Your task to perform on an android device: toggle javascript in the chrome app Image 0: 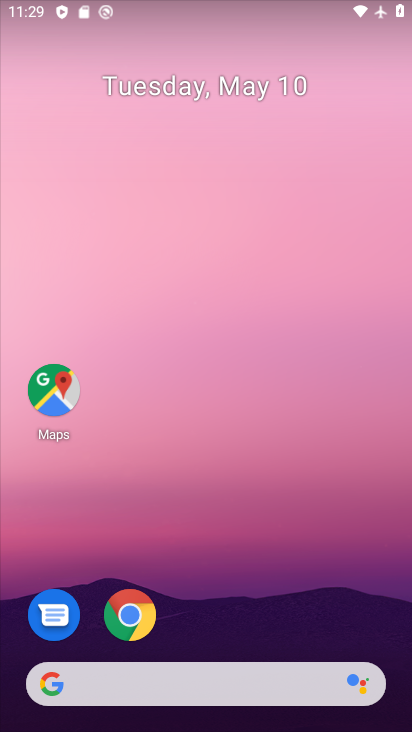
Step 0: drag from (268, 558) to (218, 13)
Your task to perform on an android device: toggle javascript in the chrome app Image 1: 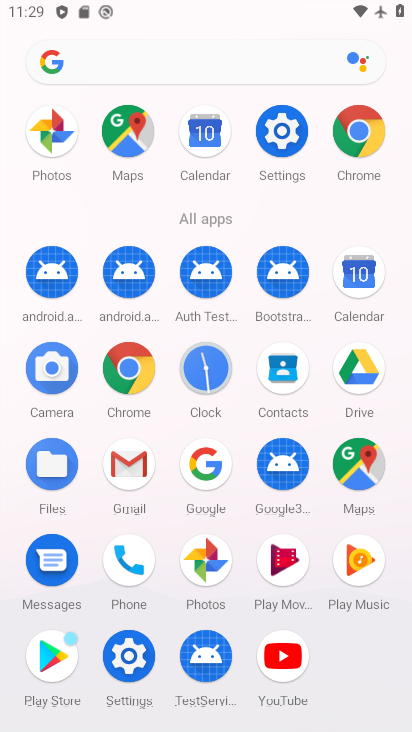
Step 1: drag from (12, 613) to (7, 284)
Your task to perform on an android device: toggle javascript in the chrome app Image 2: 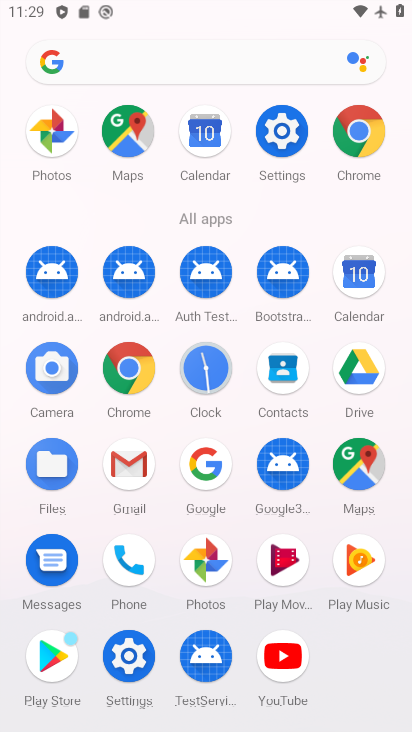
Step 2: click (125, 365)
Your task to perform on an android device: toggle javascript in the chrome app Image 3: 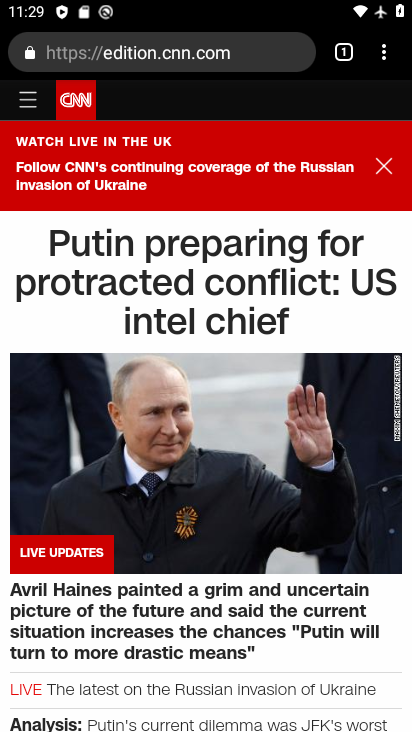
Step 3: drag from (381, 45) to (220, 582)
Your task to perform on an android device: toggle javascript in the chrome app Image 4: 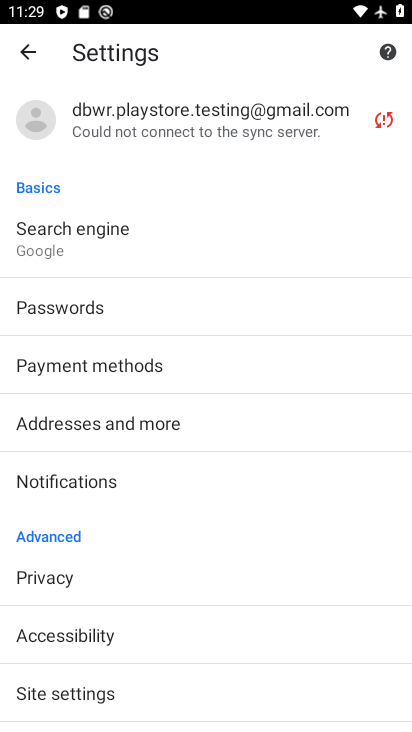
Step 4: drag from (242, 590) to (297, 250)
Your task to perform on an android device: toggle javascript in the chrome app Image 5: 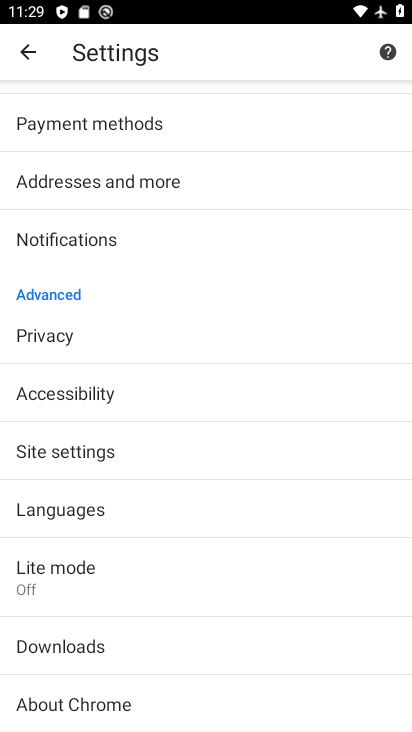
Step 5: click (99, 447)
Your task to perform on an android device: toggle javascript in the chrome app Image 6: 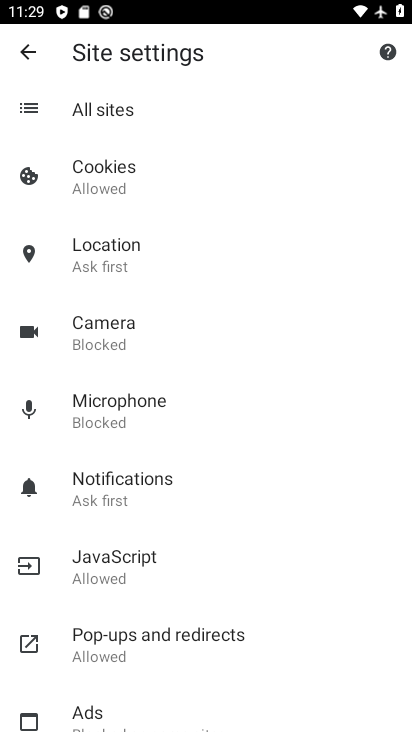
Step 6: click (138, 558)
Your task to perform on an android device: toggle javascript in the chrome app Image 7: 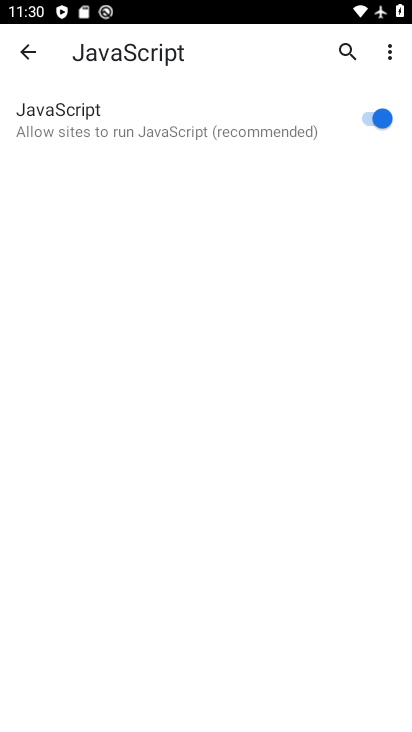
Step 7: click (367, 125)
Your task to perform on an android device: toggle javascript in the chrome app Image 8: 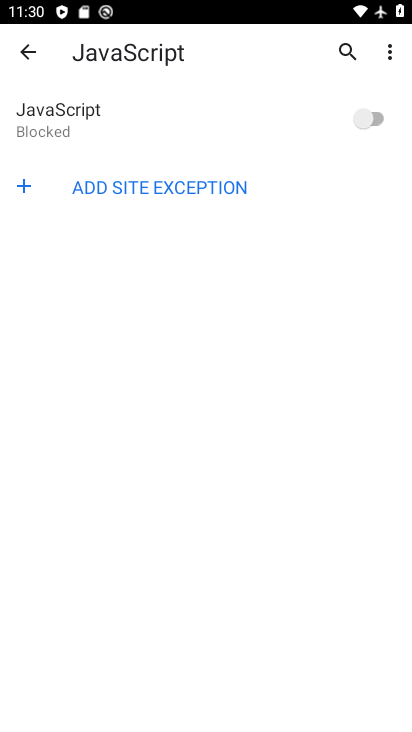
Step 8: task complete